Your task to perform on an android device: check android version Image 0: 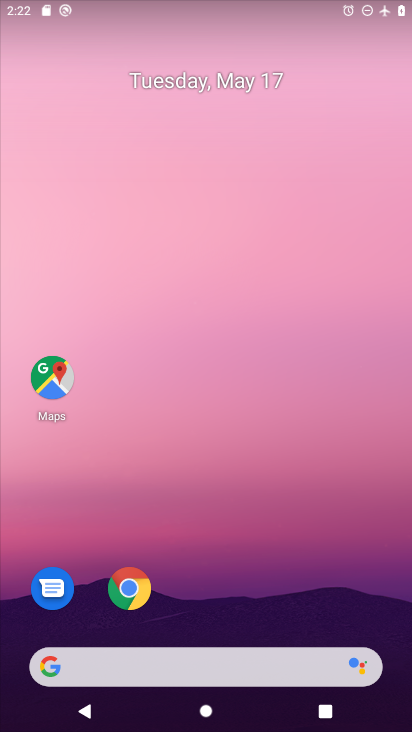
Step 0: drag from (208, 452) to (168, 122)
Your task to perform on an android device: check android version Image 1: 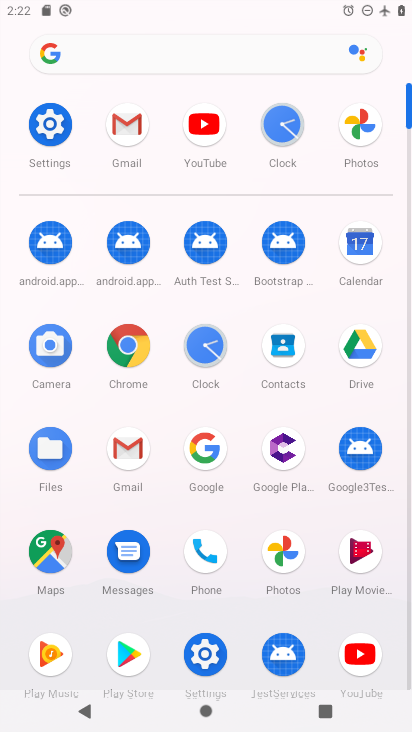
Step 1: click (48, 116)
Your task to perform on an android device: check android version Image 2: 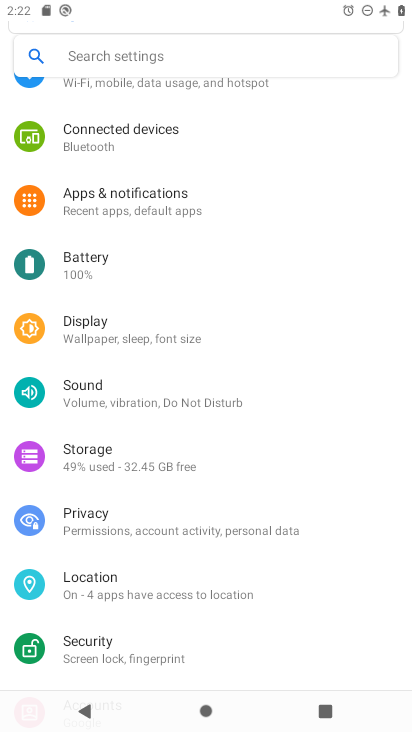
Step 2: drag from (201, 610) to (258, 184)
Your task to perform on an android device: check android version Image 3: 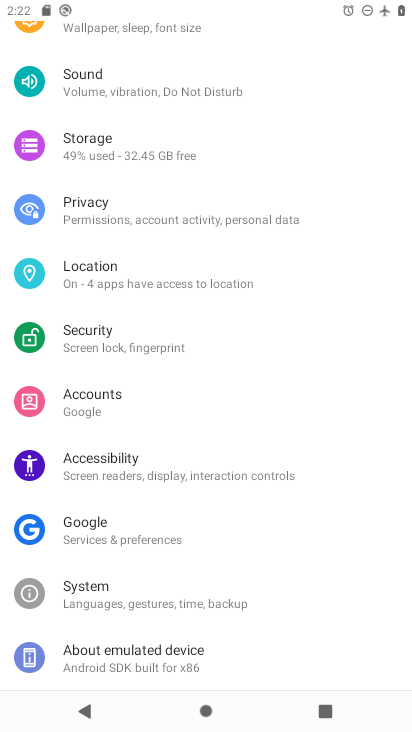
Step 3: click (143, 659)
Your task to perform on an android device: check android version Image 4: 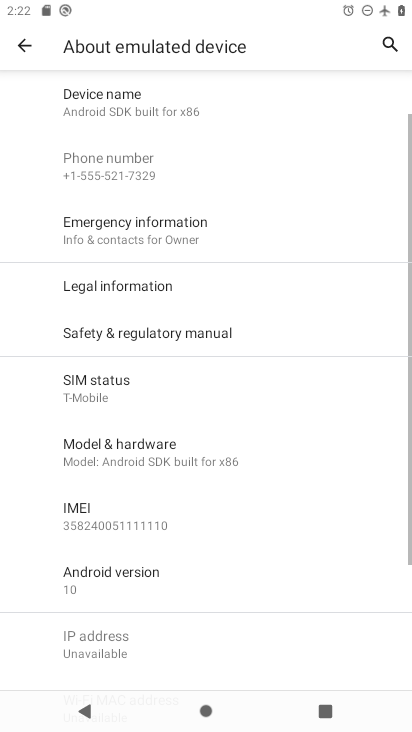
Step 4: click (122, 583)
Your task to perform on an android device: check android version Image 5: 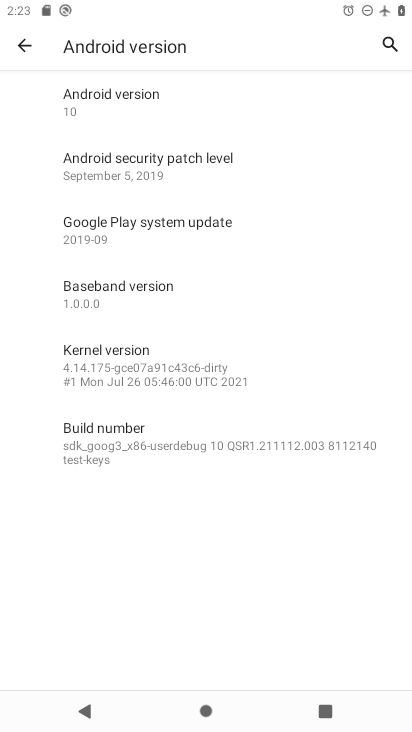
Step 5: click (175, 104)
Your task to perform on an android device: check android version Image 6: 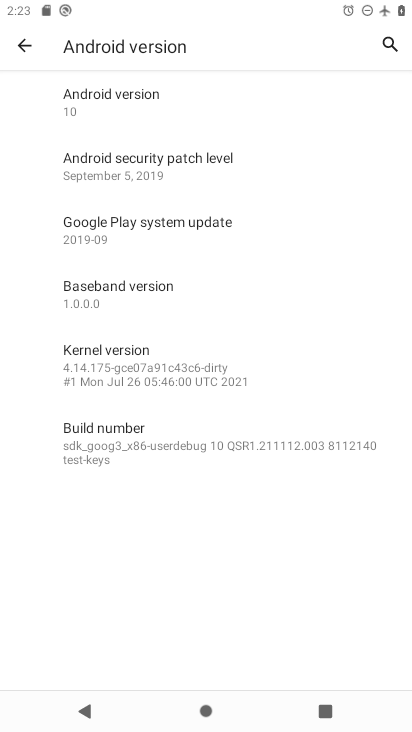
Step 6: task complete